Your task to perform on an android device: empty trash in google photos Image 0: 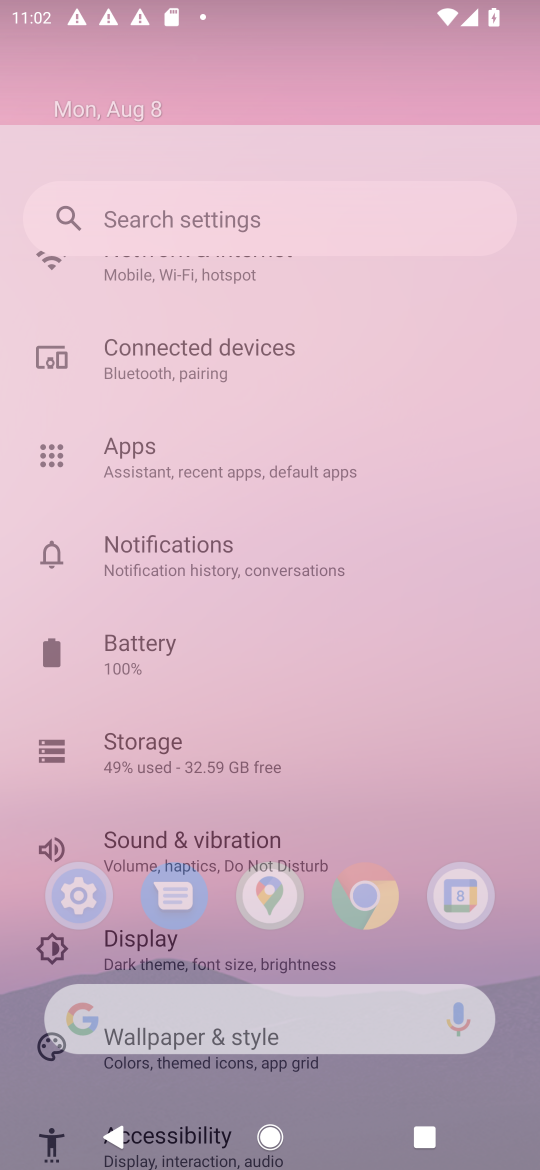
Step 0: press back button
Your task to perform on an android device: empty trash in google photos Image 1: 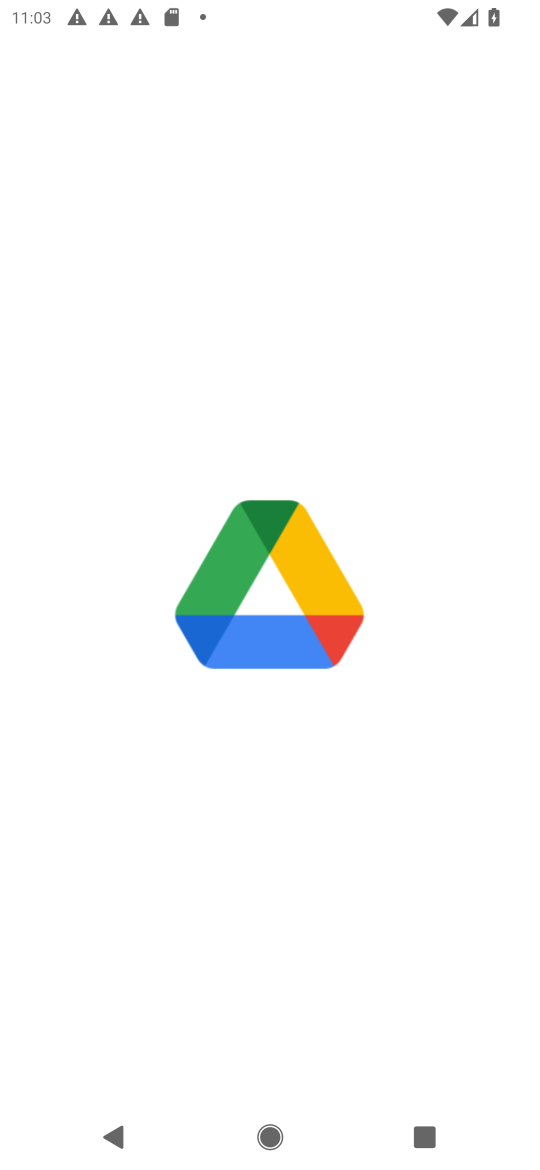
Step 1: press home button
Your task to perform on an android device: empty trash in google photos Image 2: 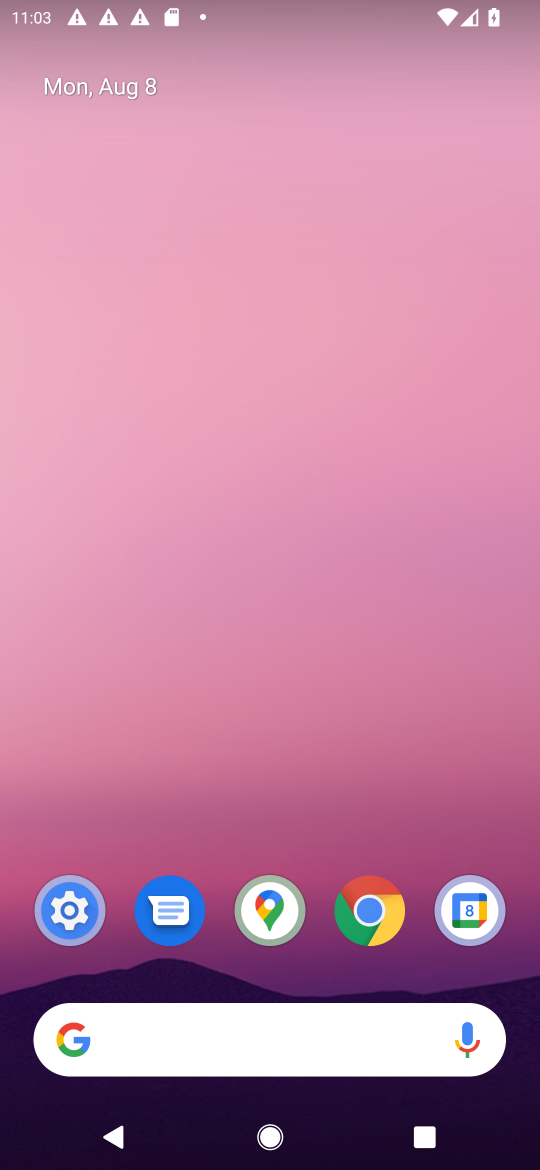
Step 2: drag from (222, 1001) to (222, 146)
Your task to perform on an android device: empty trash in google photos Image 3: 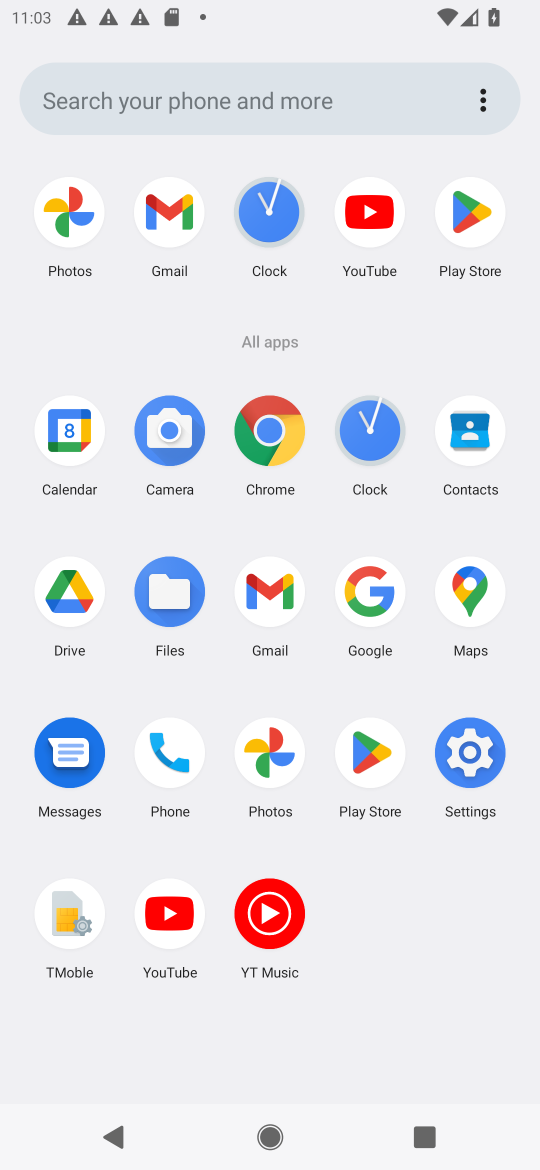
Step 3: click (282, 774)
Your task to perform on an android device: empty trash in google photos Image 4: 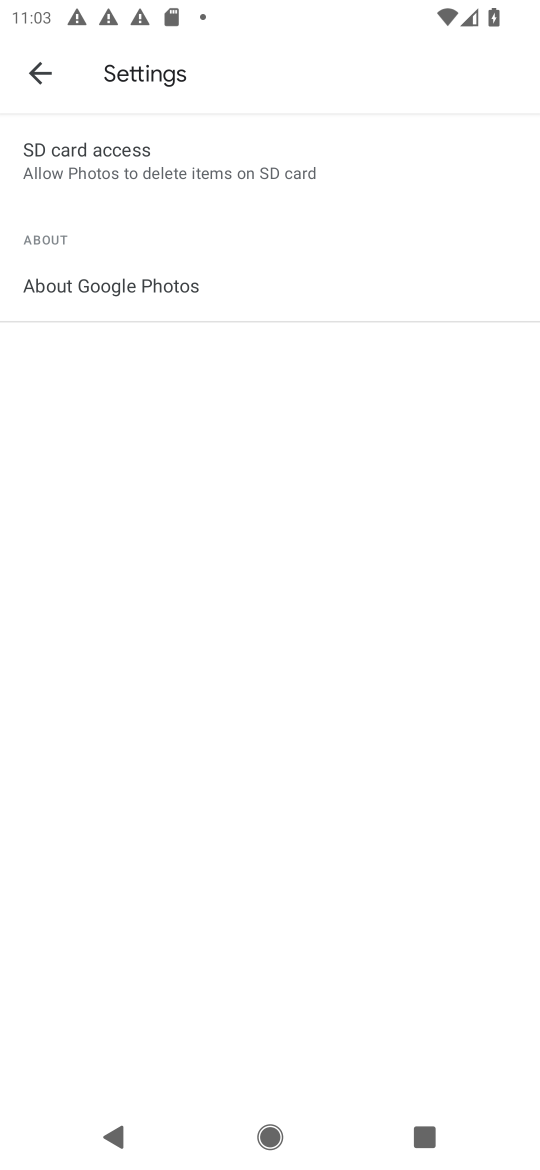
Step 4: click (30, 75)
Your task to perform on an android device: empty trash in google photos Image 5: 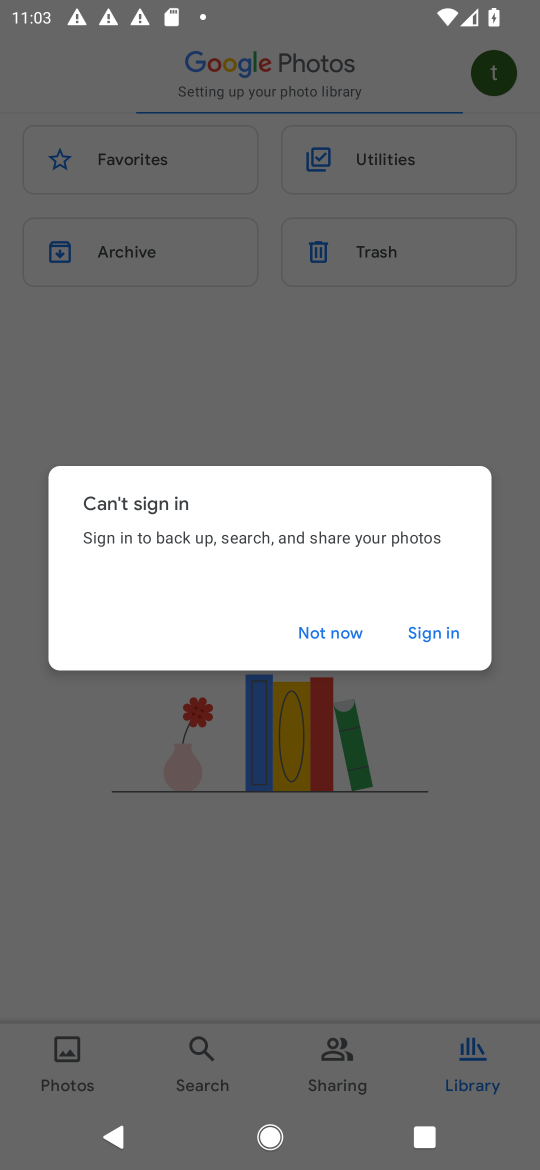
Step 5: click (326, 637)
Your task to perform on an android device: empty trash in google photos Image 6: 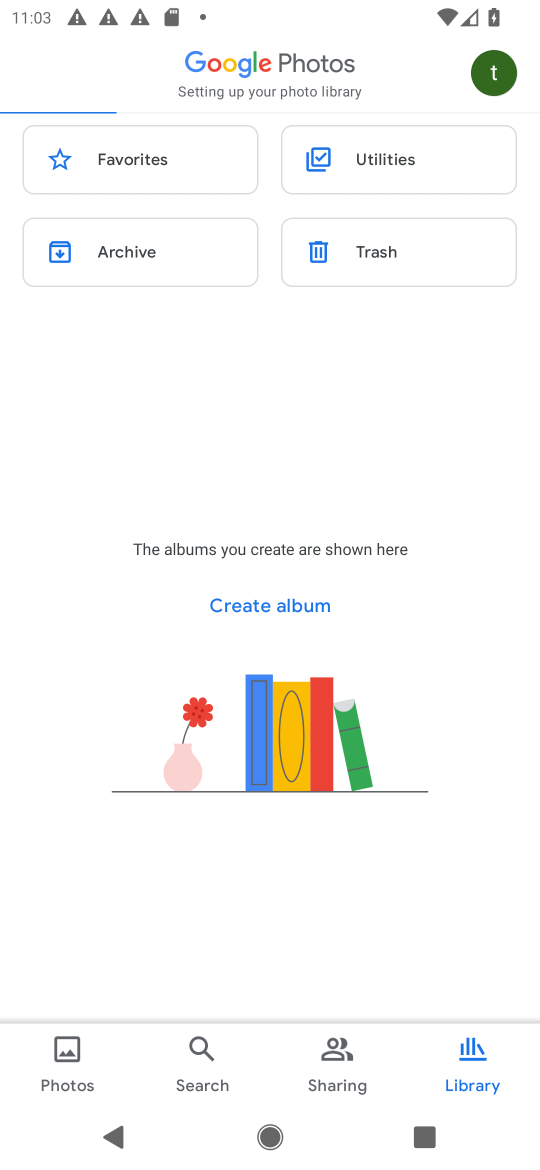
Step 6: click (470, 1060)
Your task to perform on an android device: empty trash in google photos Image 7: 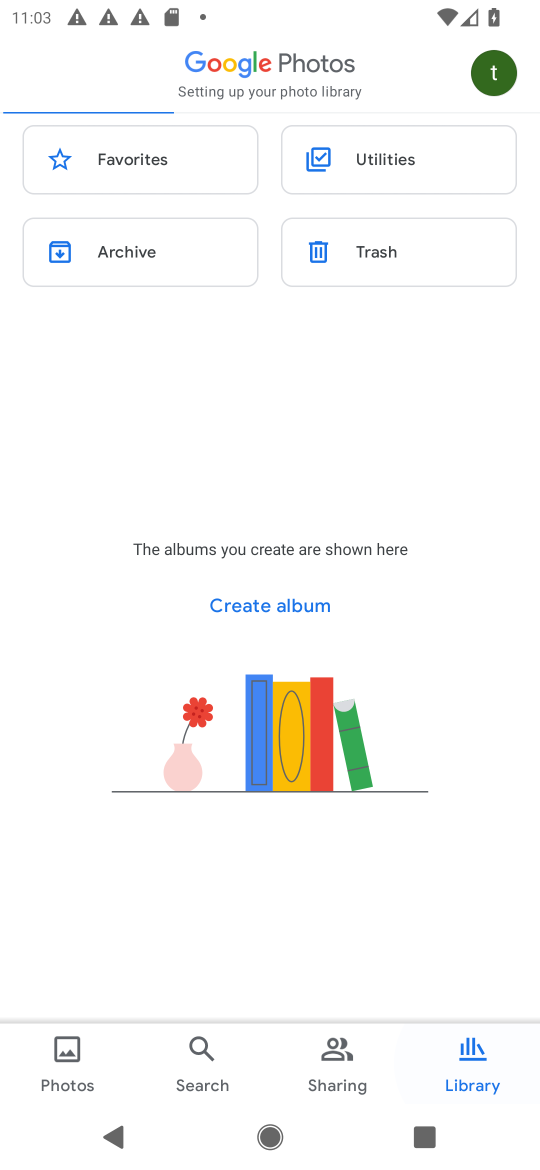
Step 7: click (360, 281)
Your task to perform on an android device: empty trash in google photos Image 8: 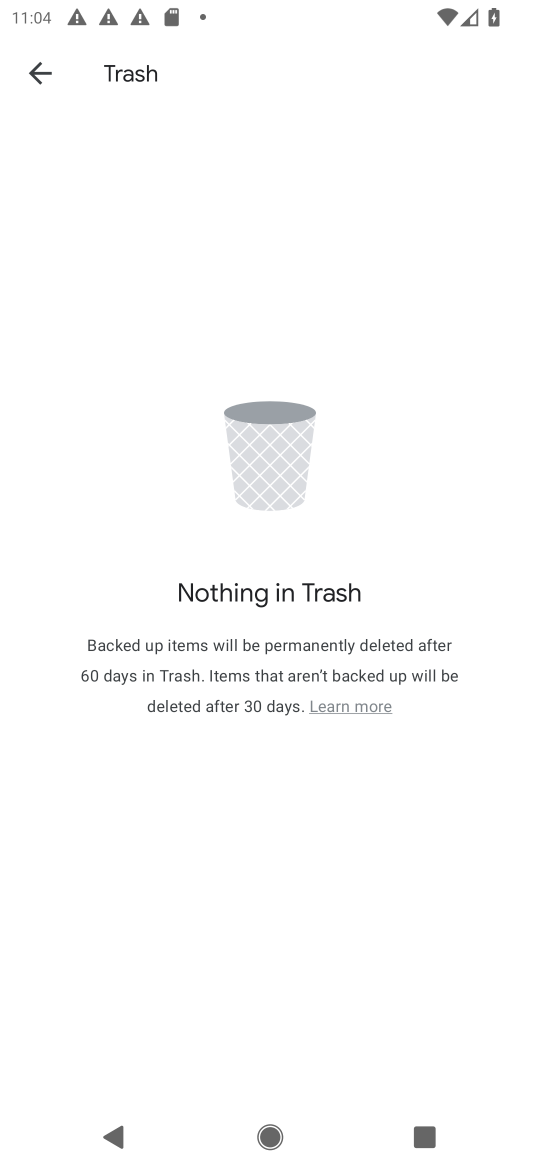
Step 8: task complete